Your task to perform on an android device: open app "Gmail" (install if not already installed) Image 0: 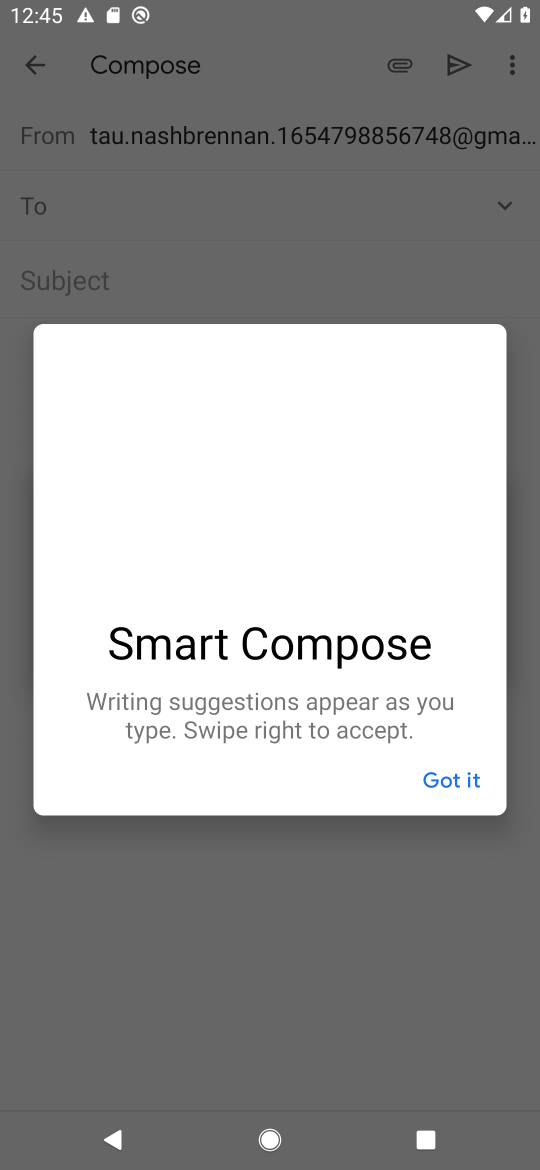
Step 0: press home button
Your task to perform on an android device: open app "Gmail" (install if not already installed) Image 1: 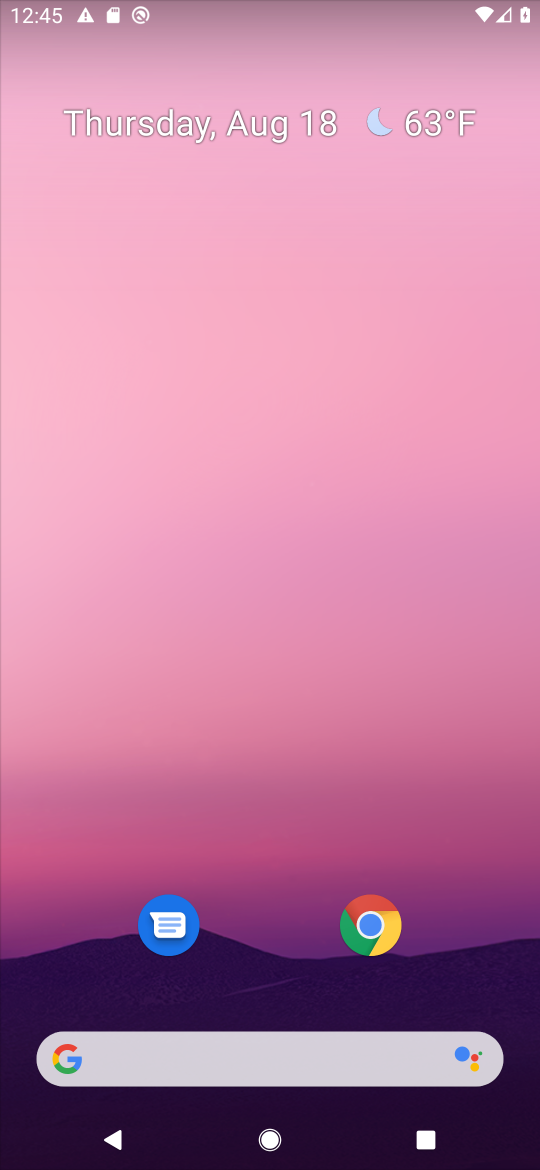
Step 1: drag from (261, 867) to (283, 17)
Your task to perform on an android device: open app "Gmail" (install if not already installed) Image 2: 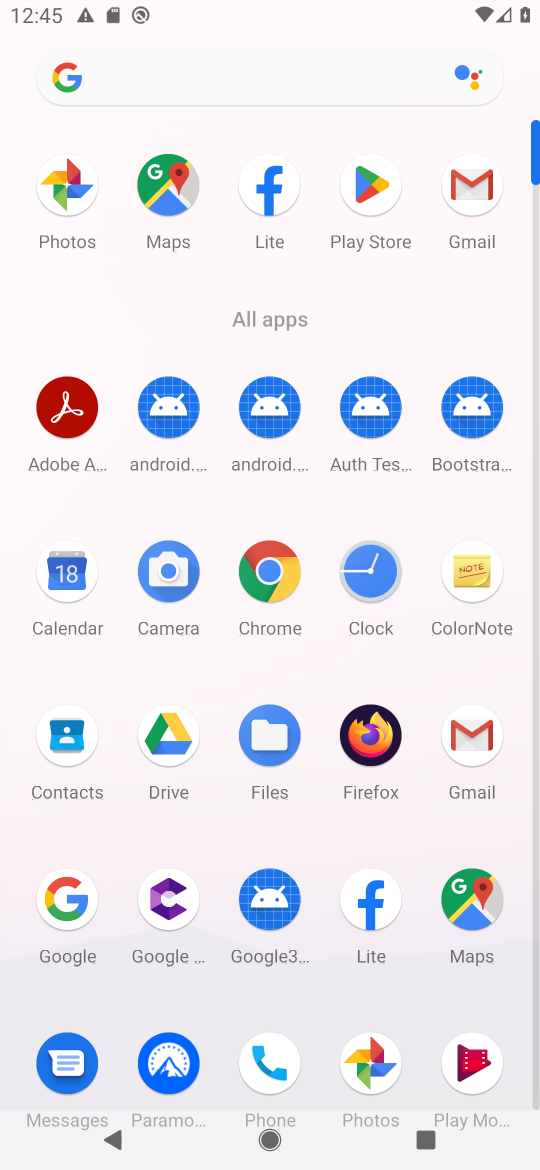
Step 2: click (479, 184)
Your task to perform on an android device: open app "Gmail" (install if not already installed) Image 3: 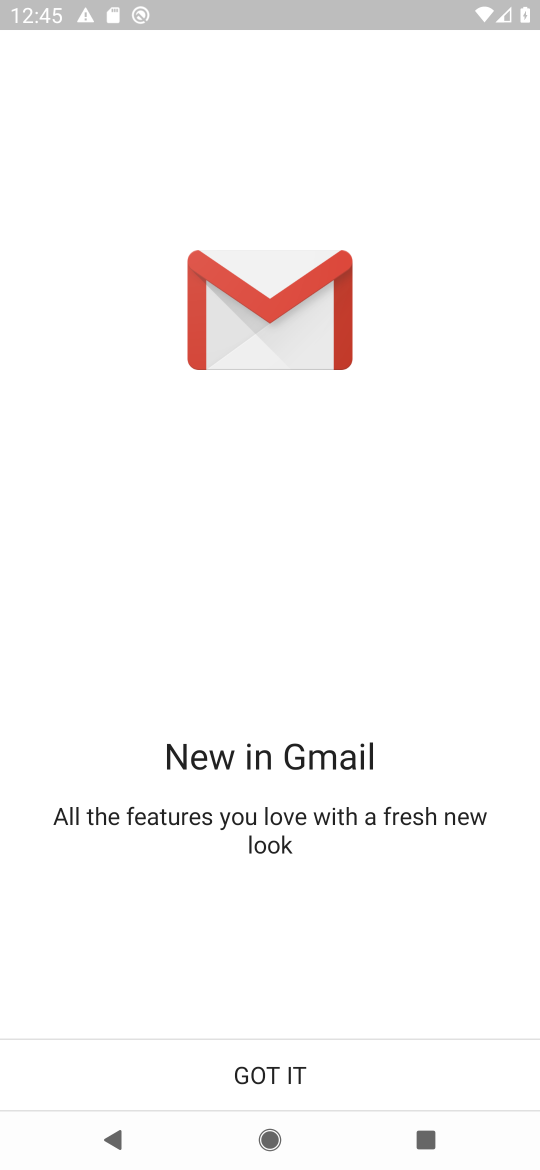
Step 3: task complete